Your task to perform on an android device: Open the stopwatch Image 0: 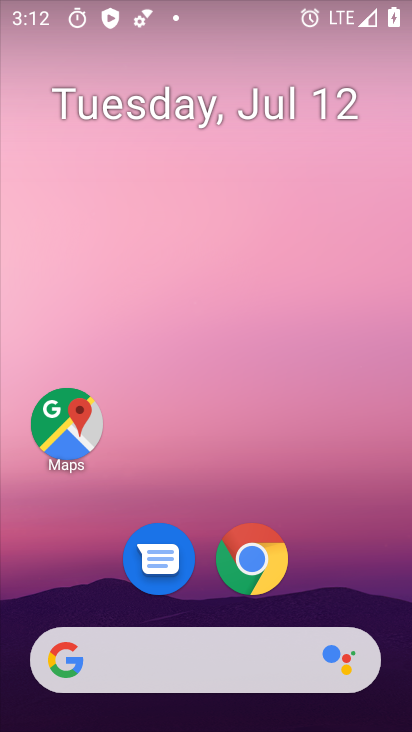
Step 0: drag from (382, 573) to (369, 216)
Your task to perform on an android device: Open the stopwatch Image 1: 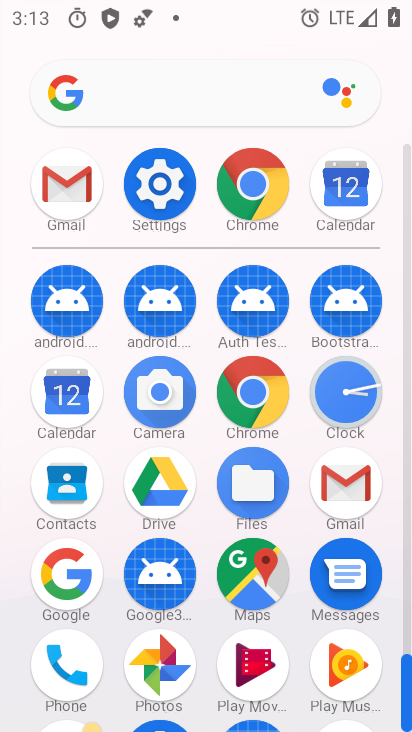
Step 1: click (364, 396)
Your task to perform on an android device: Open the stopwatch Image 2: 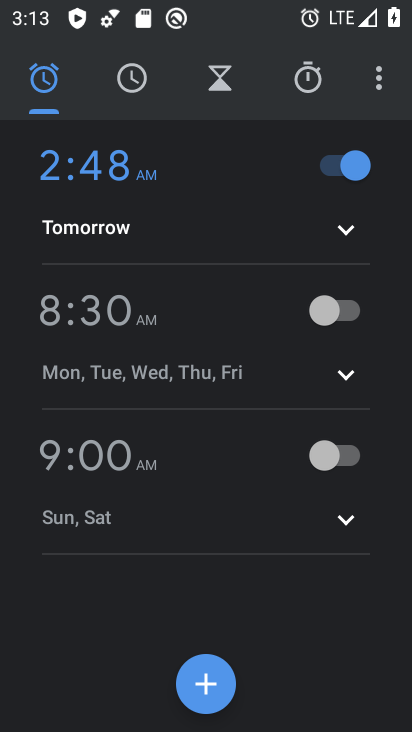
Step 2: click (307, 86)
Your task to perform on an android device: Open the stopwatch Image 3: 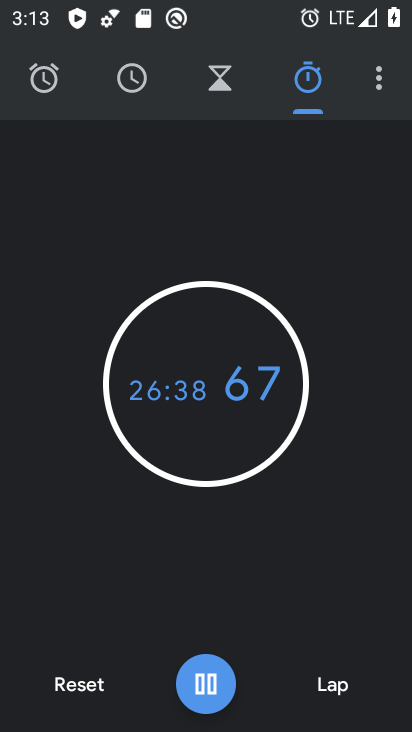
Step 3: task complete